Your task to perform on an android device: install app "Messenger Lite" Image 0: 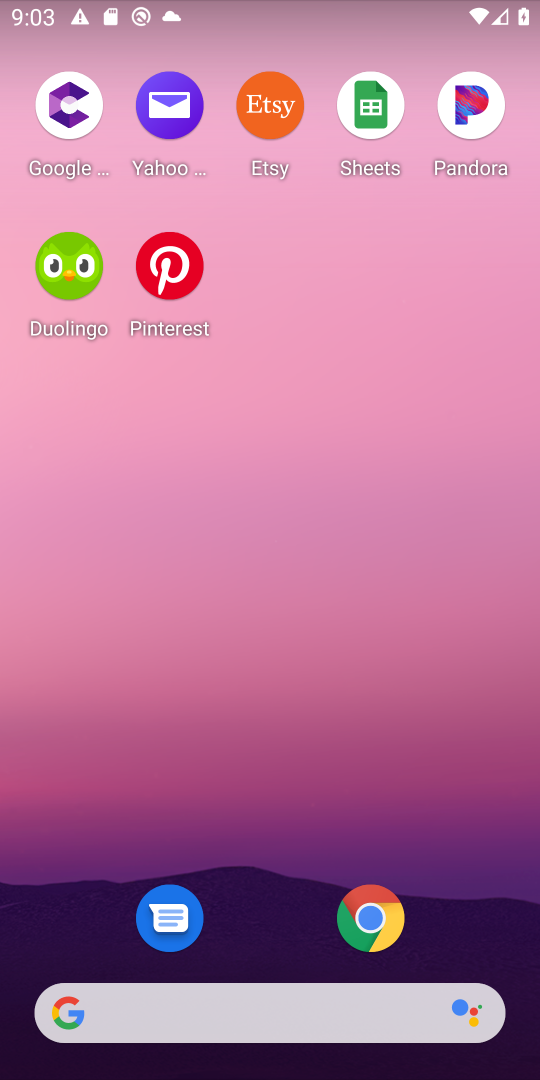
Step 0: drag from (249, 1036) to (296, 36)
Your task to perform on an android device: install app "Messenger Lite" Image 1: 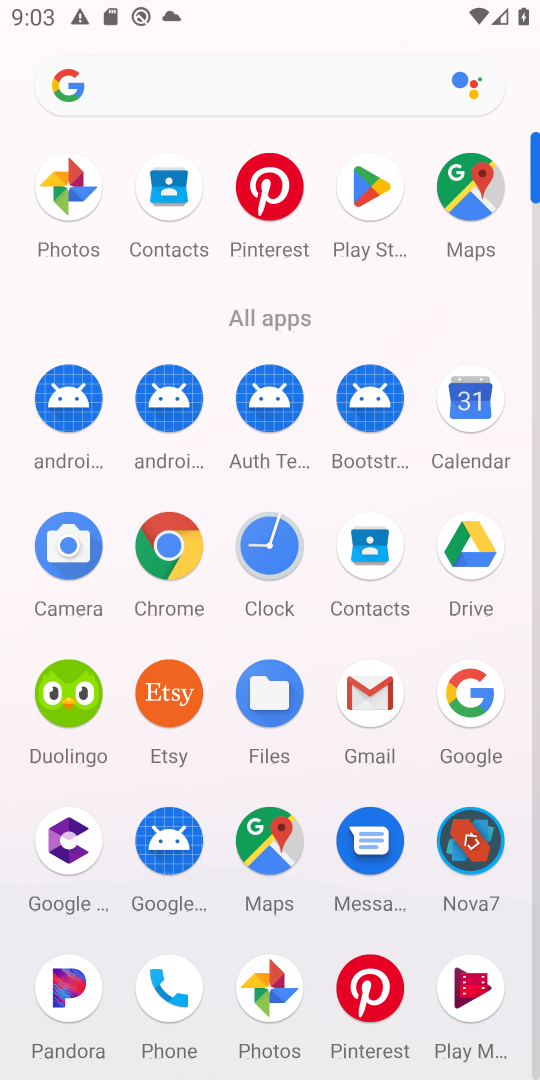
Step 1: click (395, 214)
Your task to perform on an android device: install app "Messenger Lite" Image 2: 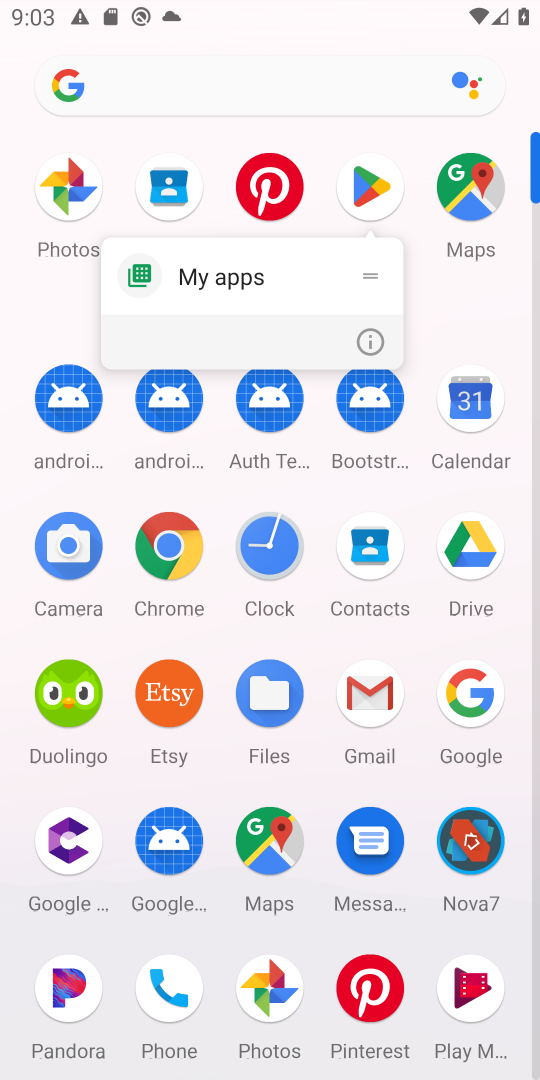
Step 2: click (395, 214)
Your task to perform on an android device: install app "Messenger Lite" Image 3: 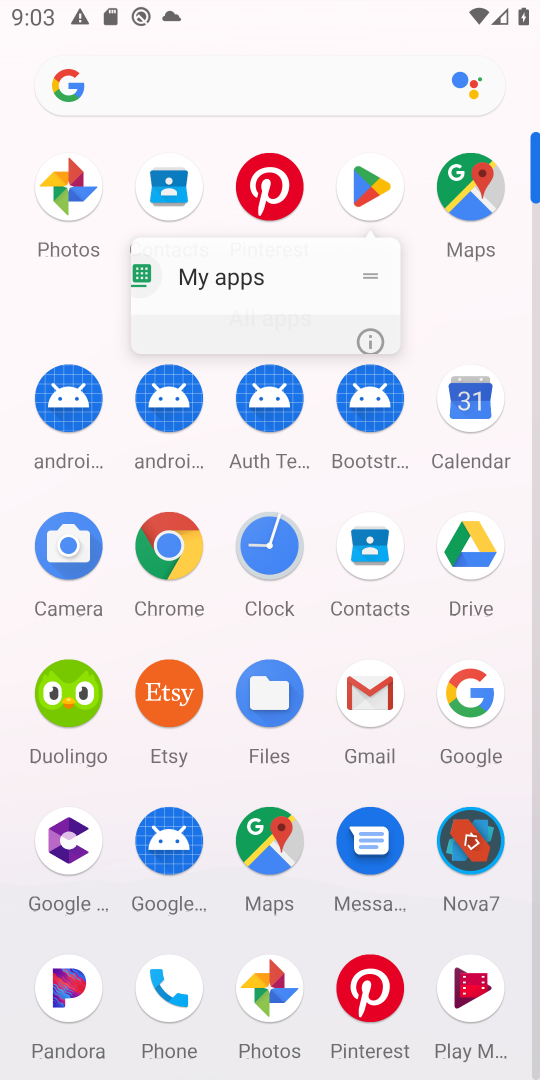
Step 3: click (395, 214)
Your task to perform on an android device: install app "Messenger Lite" Image 4: 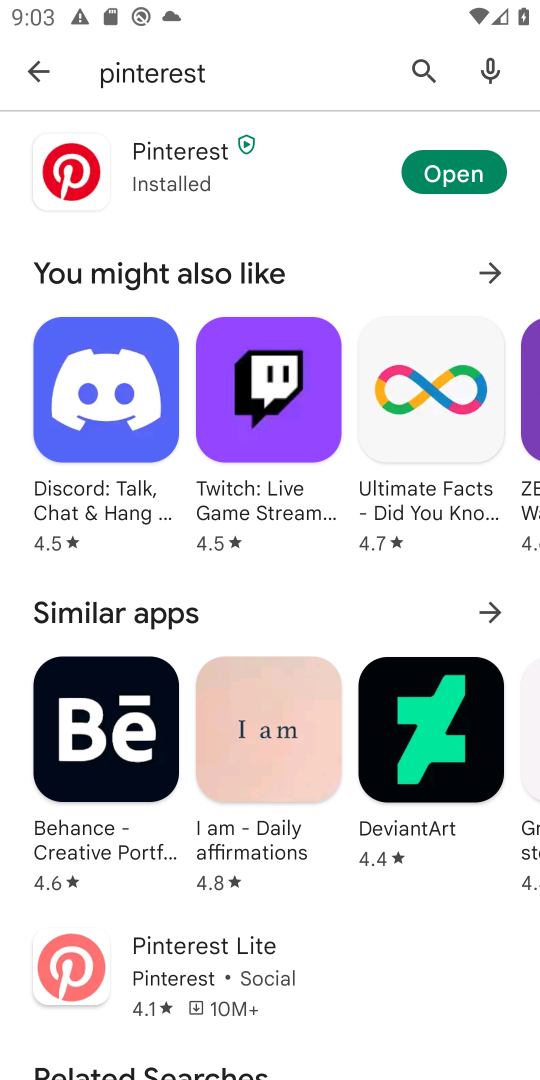
Step 4: click (386, 186)
Your task to perform on an android device: install app "Messenger Lite" Image 5: 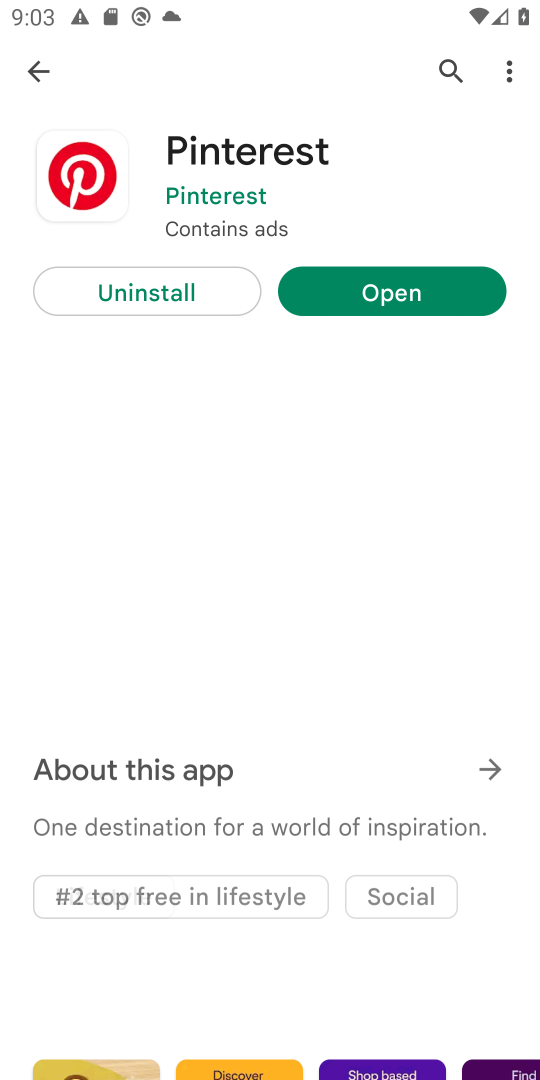
Step 5: click (418, 57)
Your task to perform on an android device: install app "Messenger Lite" Image 6: 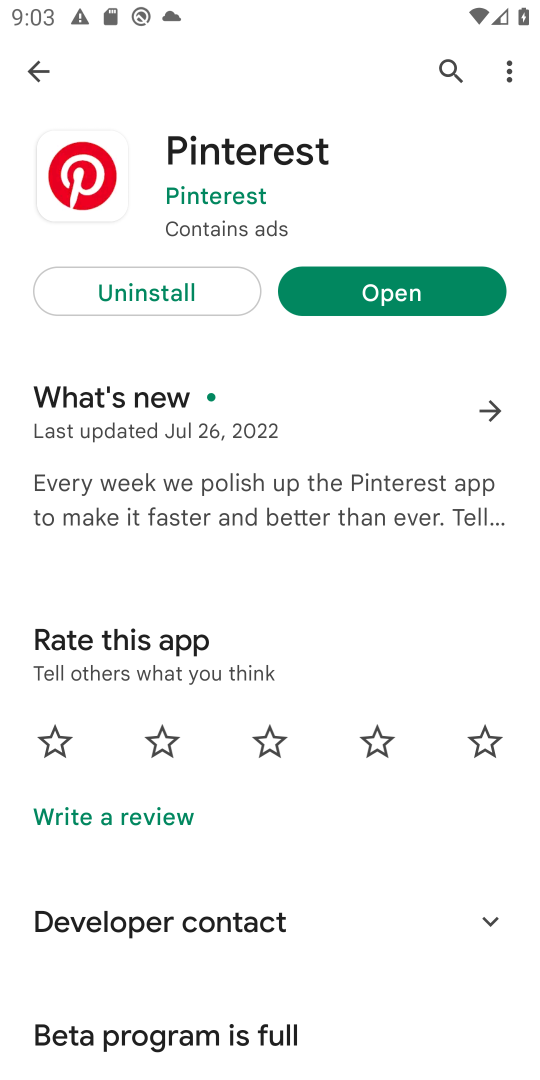
Step 6: click (454, 71)
Your task to perform on an android device: install app "Messenger Lite" Image 7: 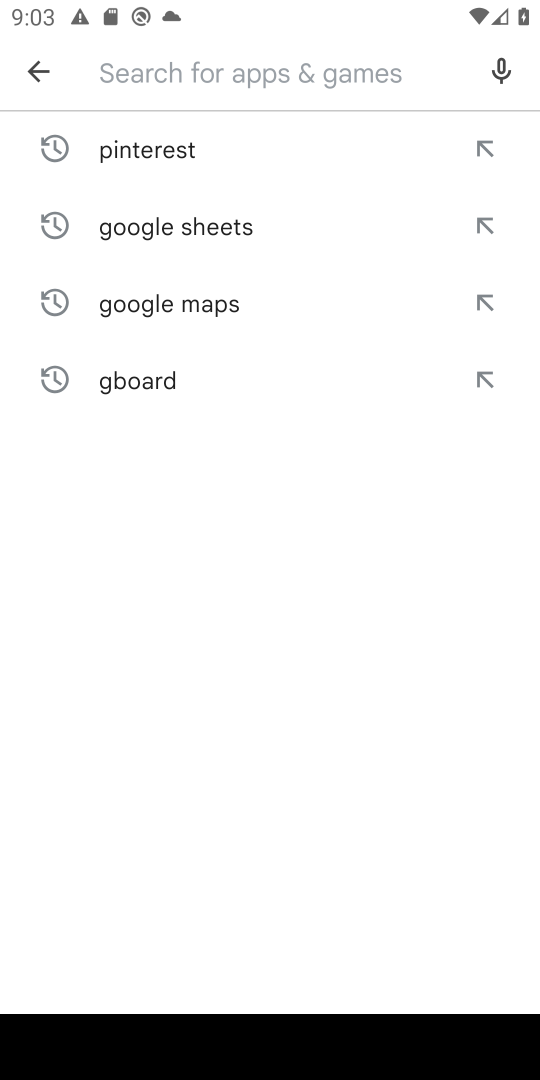
Step 7: type "Messenger Lite"
Your task to perform on an android device: install app "Messenger Lite" Image 8: 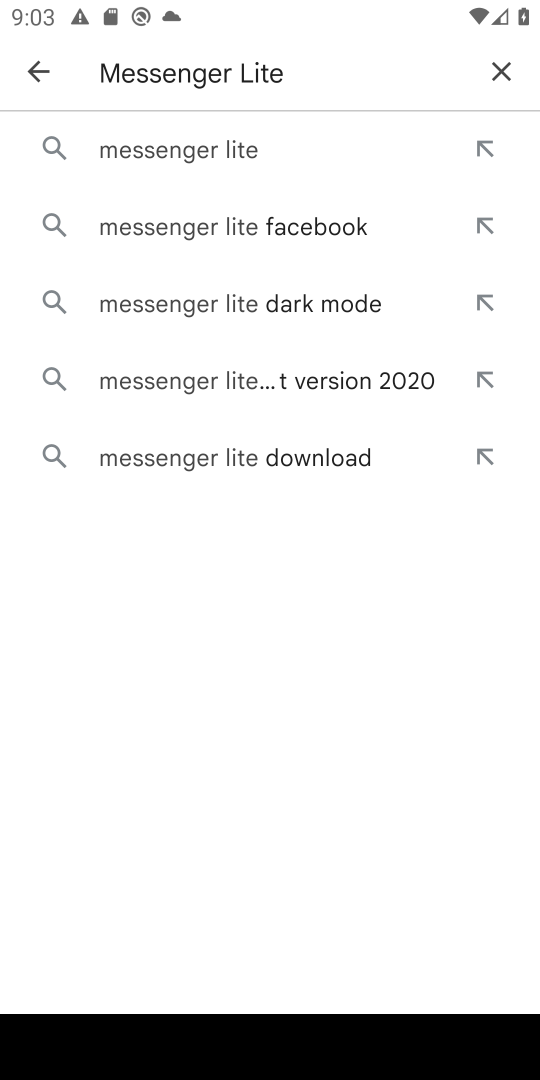
Step 8: click (209, 166)
Your task to perform on an android device: install app "Messenger Lite" Image 9: 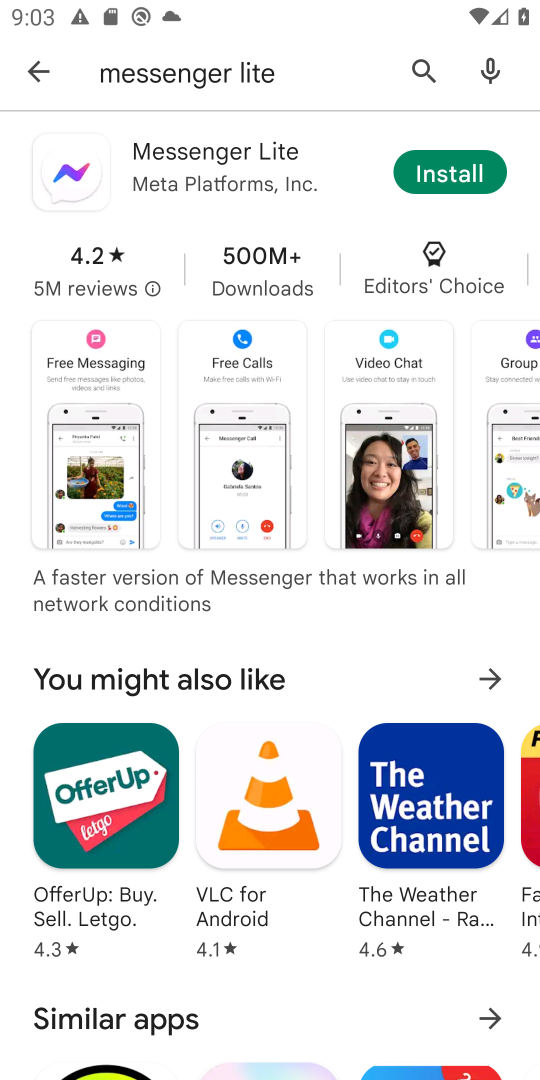
Step 9: click (461, 169)
Your task to perform on an android device: install app "Messenger Lite" Image 10: 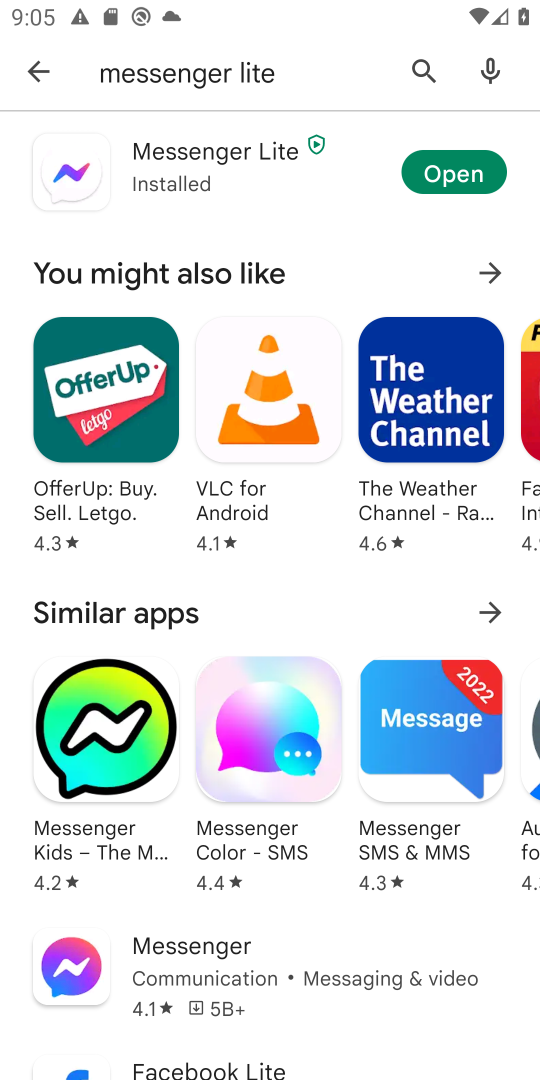
Step 10: task complete